Your task to perform on an android device: toggle airplane mode Image 0: 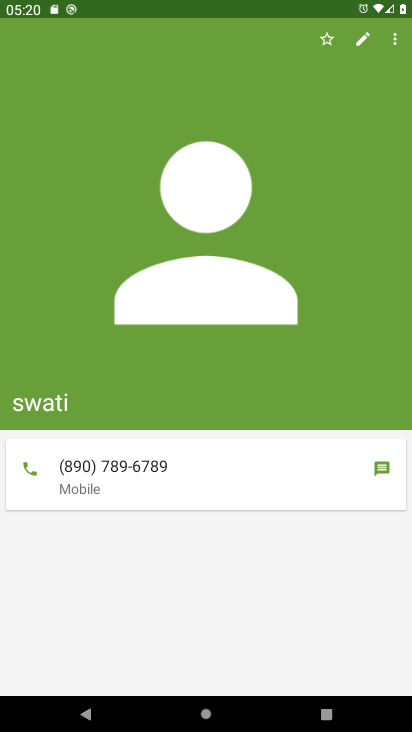
Step 0: press home button
Your task to perform on an android device: toggle airplane mode Image 1: 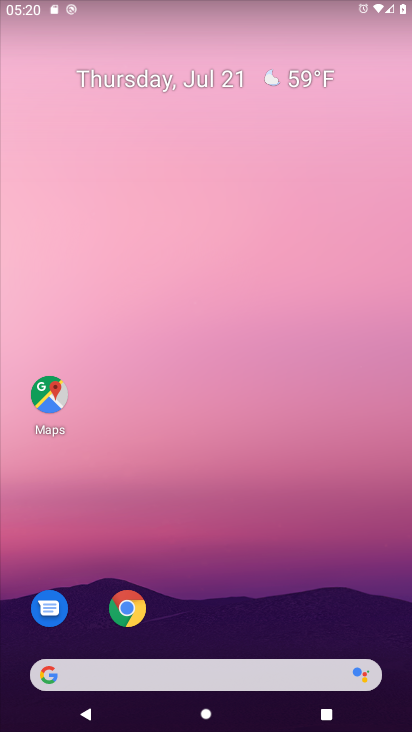
Step 1: drag from (337, 635) to (307, 185)
Your task to perform on an android device: toggle airplane mode Image 2: 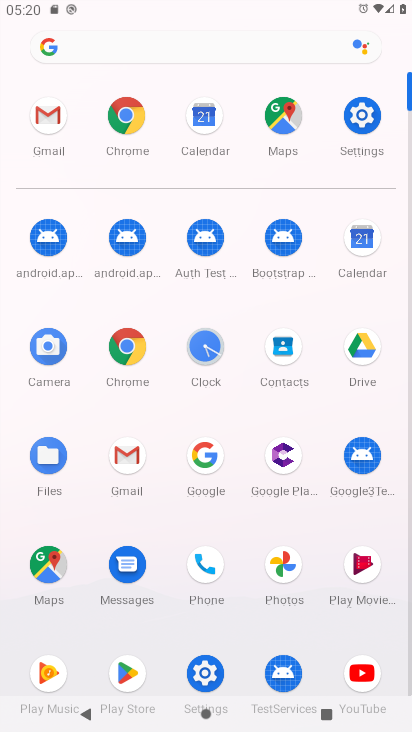
Step 2: click (363, 118)
Your task to perform on an android device: toggle airplane mode Image 3: 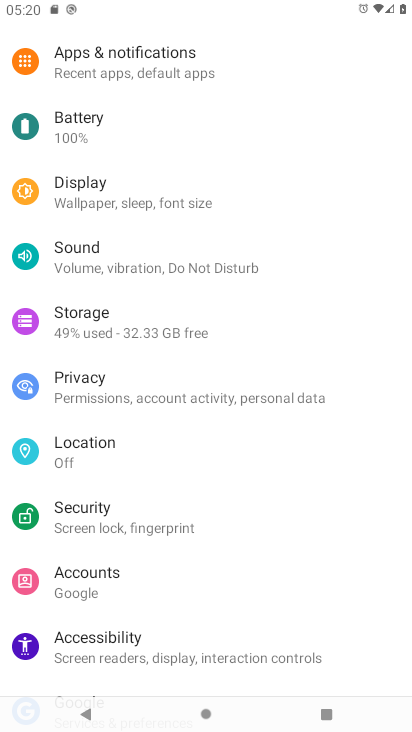
Step 3: drag from (245, 152) to (375, 653)
Your task to perform on an android device: toggle airplane mode Image 4: 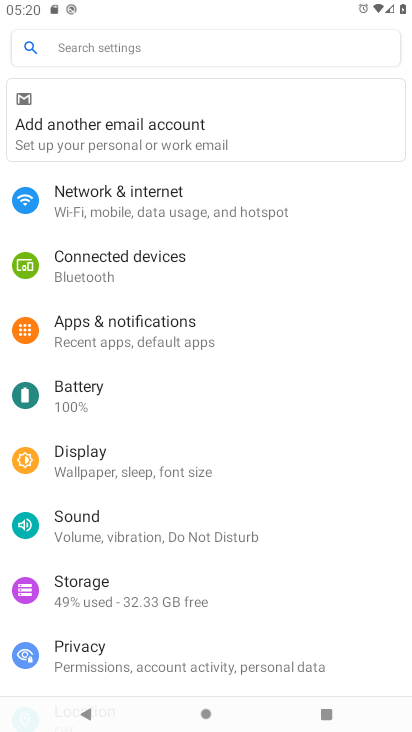
Step 4: click (207, 212)
Your task to perform on an android device: toggle airplane mode Image 5: 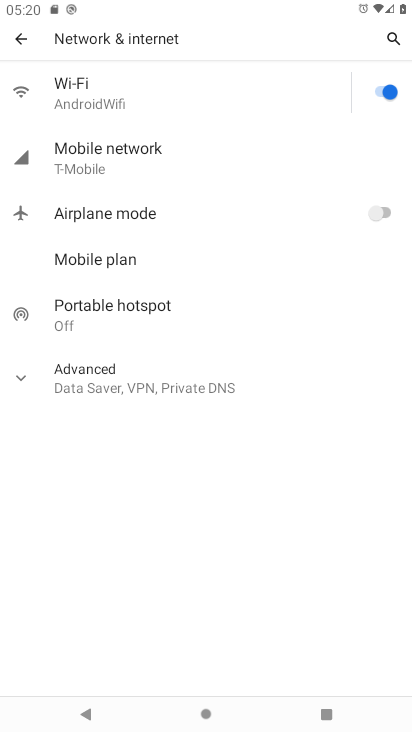
Step 5: click (382, 212)
Your task to perform on an android device: toggle airplane mode Image 6: 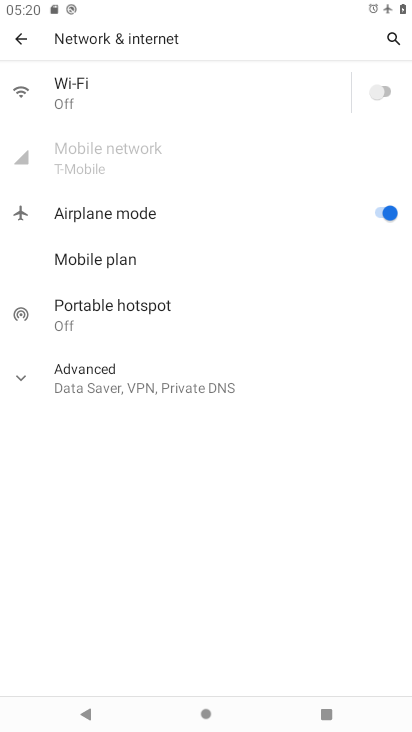
Step 6: task complete